Your task to perform on an android device: snooze an email in the gmail app Image 0: 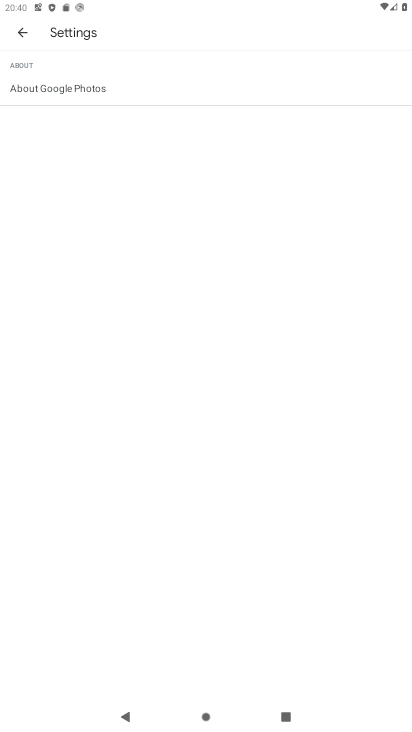
Step 0: press home button
Your task to perform on an android device: snooze an email in the gmail app Image 1: 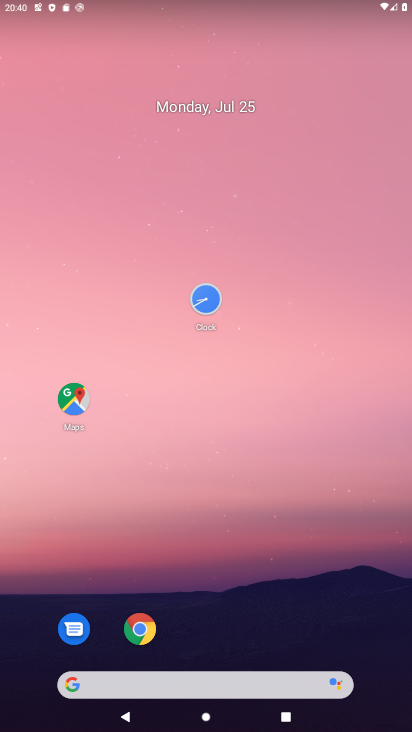
Step 1: drag from (220, 615) to (232, 10)
Your task to perform on an android device: snooze an email in the gmail app Image 2: 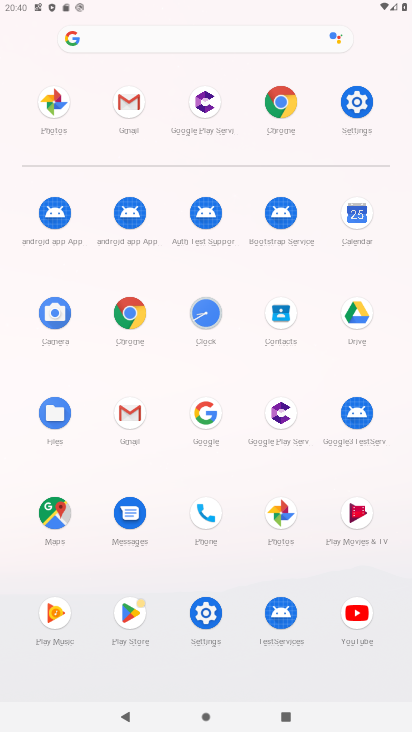
Step 2: click (135, 413)
Your task to perform on an android device: snooze an email in the gmail app Image 3: 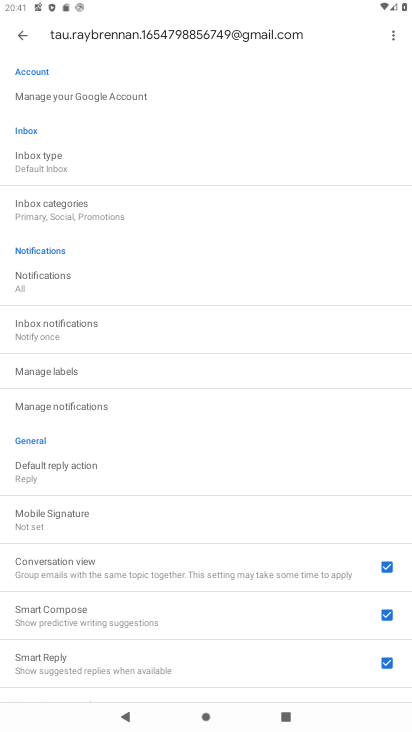
Step 3: click (19, 33)
Your task to perform on an android device: snooze an email in the gmail app Image 4: 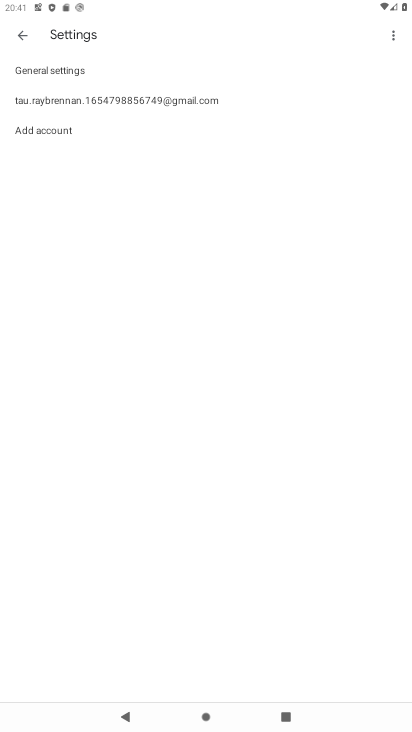
Step 4: click (19, 33)
Your task to perform on an android device: snooze an email in the gmail app Image 5: 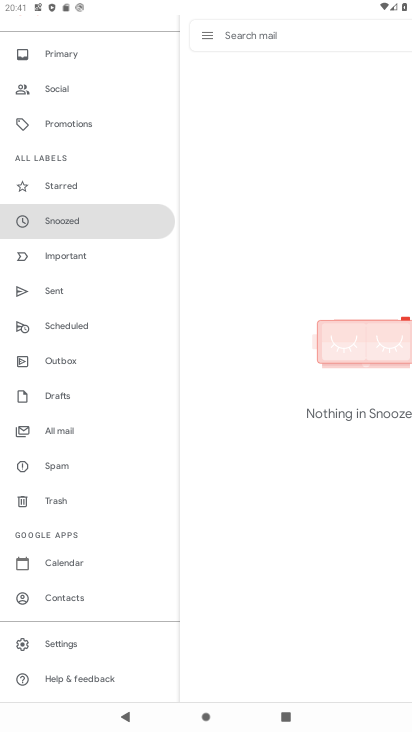
Step 5: drag from (121, 518) to (121, 560)
Your task to perform on an android device: snooze an email in the gmail app Image 6: 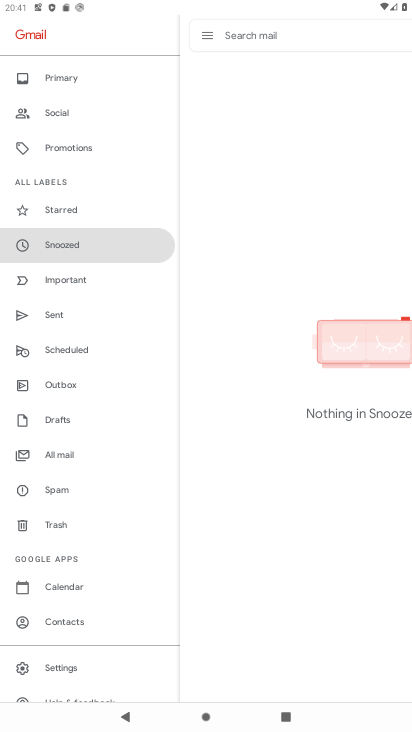
Step 6: click (70, 73)
Your task to perform on an android device: snooze an email in the gmail app Image 7: 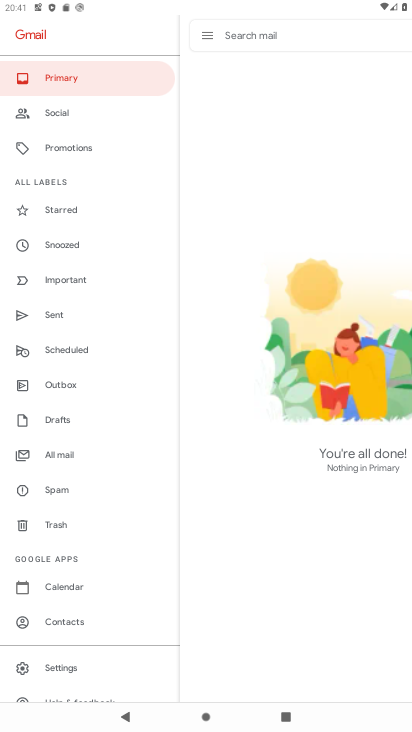
Step 7: task complete